Your task to perform on an android device: What's the weather? Image 0: 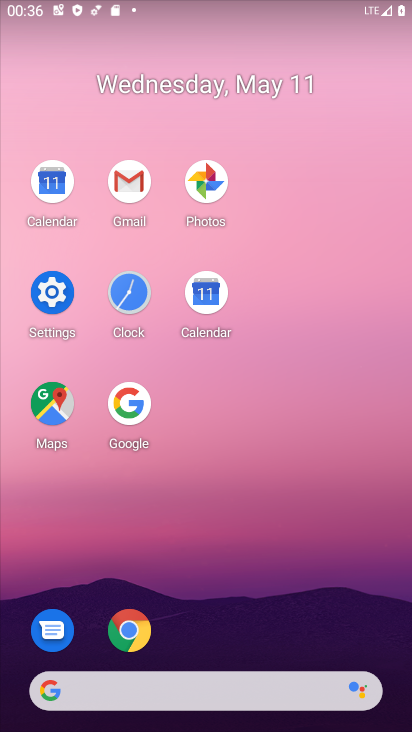
Step 0: click (123, 399)
Your task to perform on an android device: What's the weather? Image 1: 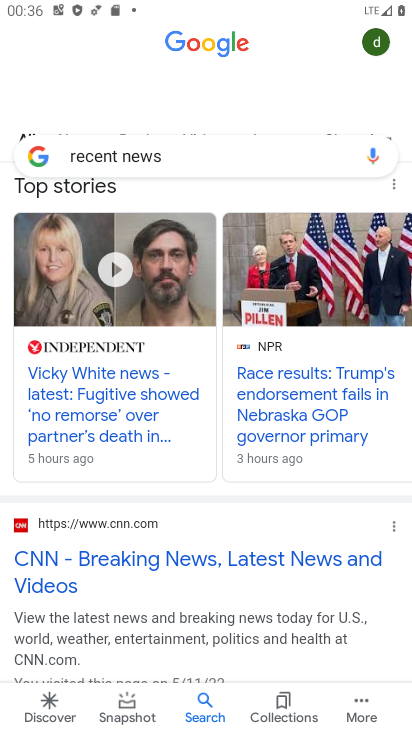
Step 1: click (195, 156)
Your task to perform on an android device: What's the weather? Image 2: 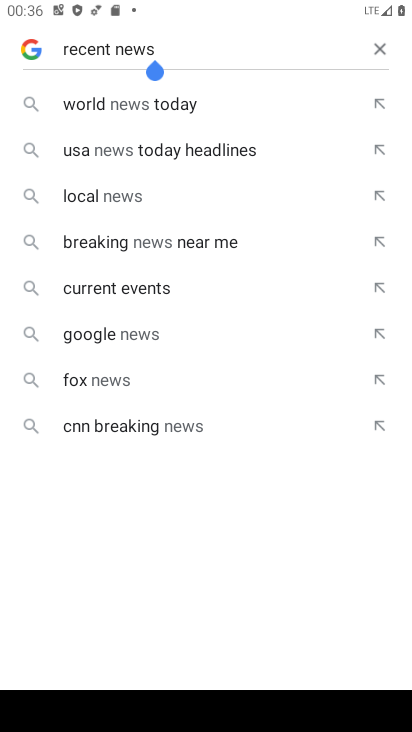
Step 2: click (377, 47)
Your task to perform on an android device: What's the weather? Image 3: 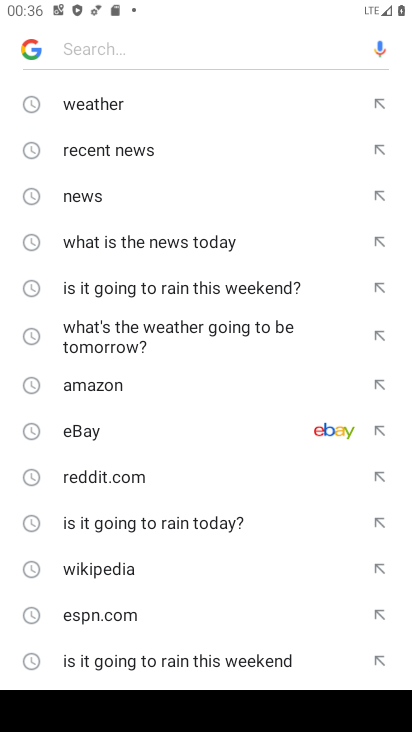
Step 3: click (142, 98)
Your task to perform on an android device: What's the weather? Image 4: 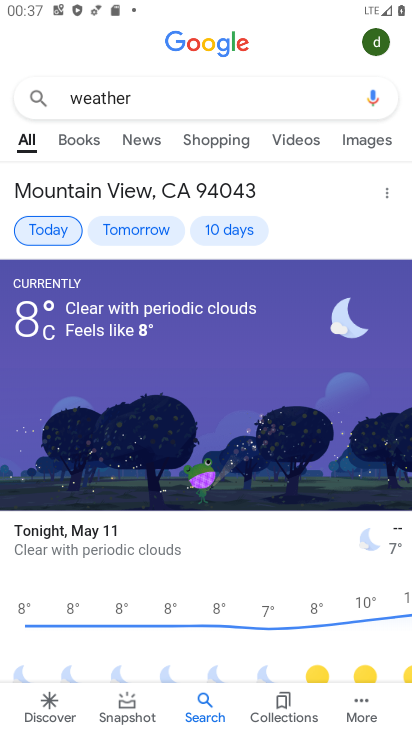
Step 4: task complete